Your task to perform on an android device: change the upload size in google photos Image 0: 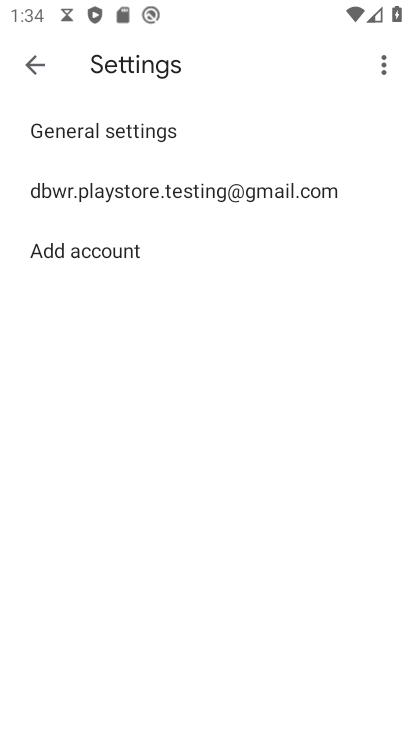
Step 0: press home button
Your task to perform on an android device: change the upload size in google photos Image 1: 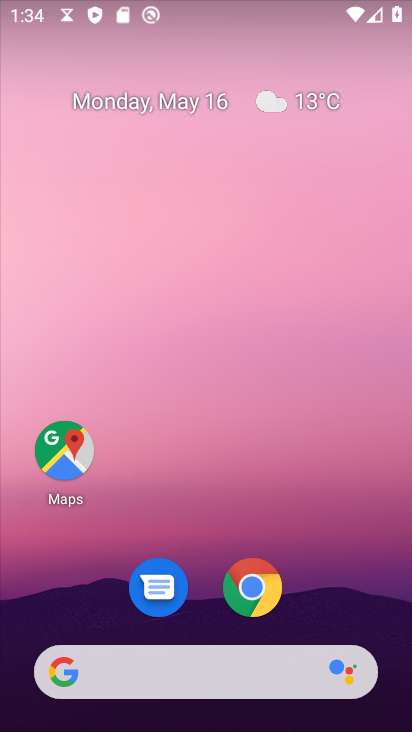
Step 1: drag from (180, 620) to (180, 371)
Your task to perform on an android device: change the upload size in google photos Image 2: 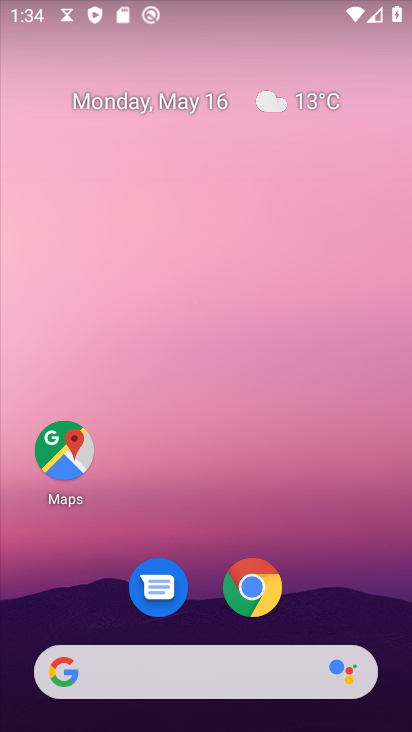
Step 2: drag from (204, 528) to (204, 228)
Your task to perform on an android device: change the upload size in google photos Image 3: 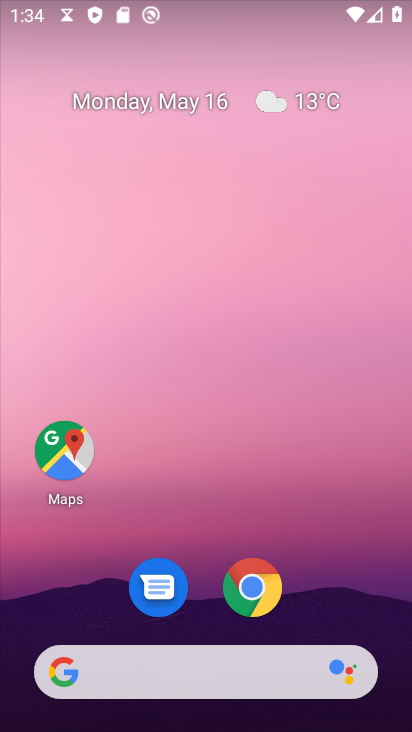
Step 3: drag from (186, 628) to (177, 247)
Your task to perform on an android device: change the upload size in google photos Image 4: 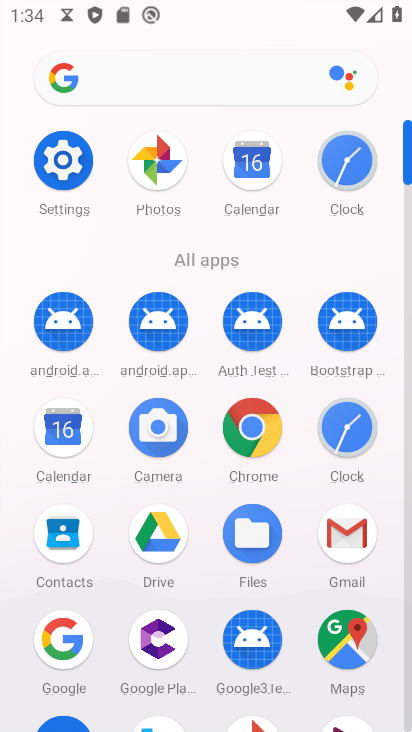
Step 4: click (161, 167)
Your task to perform on an android device: change the upload size in google photos Image 5: 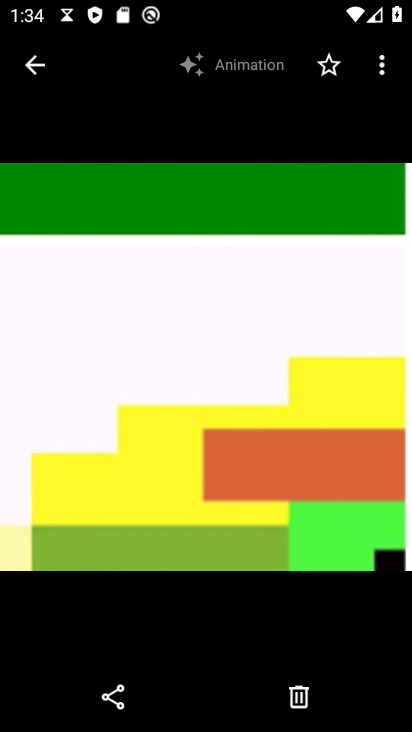
Step 5: click (37, 72)
Your task to perform on an android device: change the upload size in google photos Image 6: 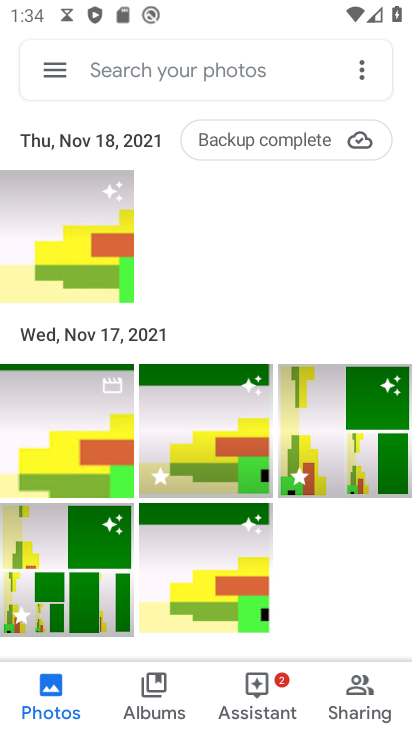
Step 6: click (46, 73)
Your task to perform on an android device: change the upload size in google photos Image 7: 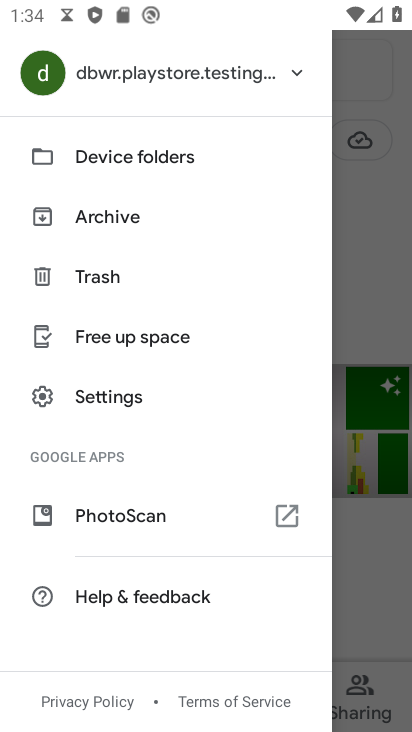
Step 7: click (108, 396)
Your task to perform on an android device: change the upload size in google photos Image 8: 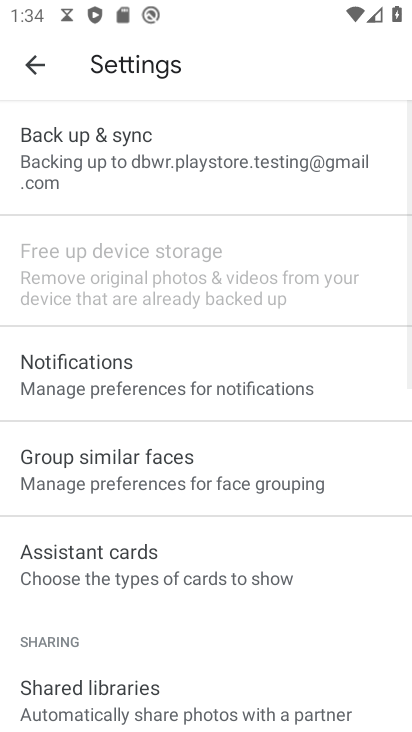
Step 8: click (106, 144)
Your task to perform on an android device: change the upload size in google photos Image 9: 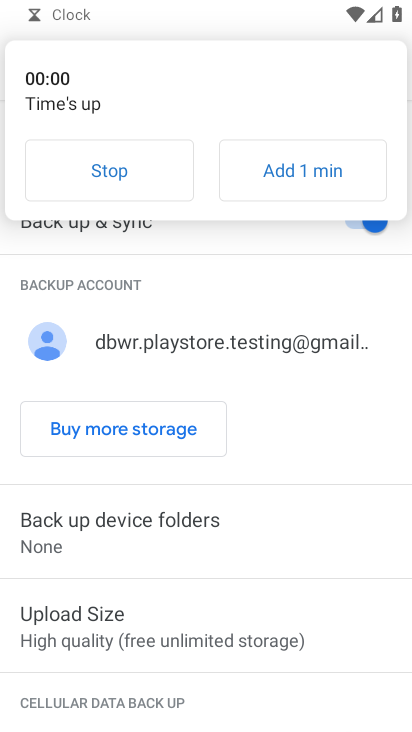
Step 9: click (95, 642)
Your task to perform on an android device: change the upload size in google photos Image 10: 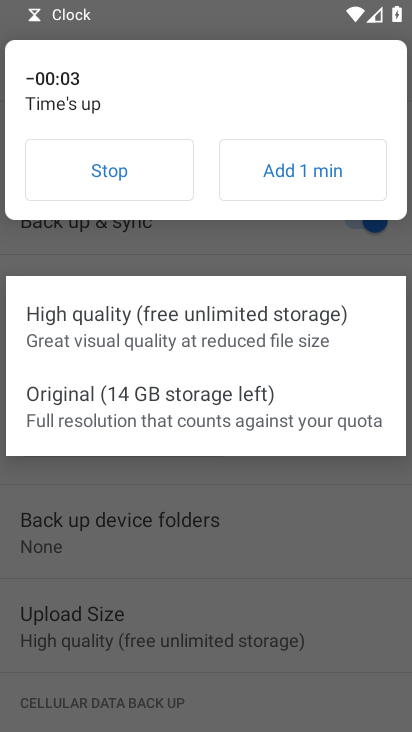
Step 10: click (129, 177)
Your task to perform on an android device: change the upload size in google photos Image 11: 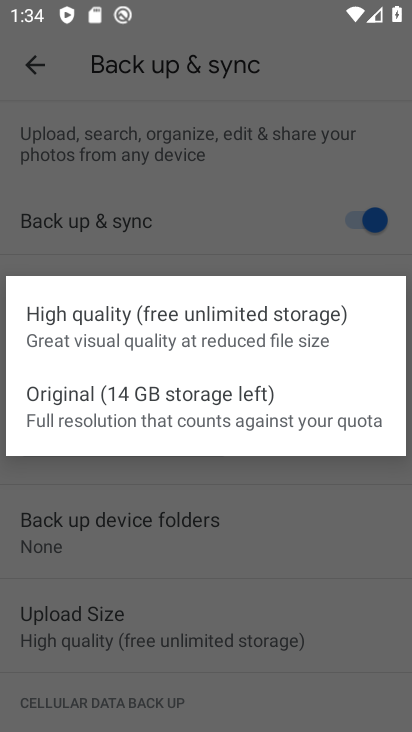
Step 11: click (80, 396)
Your task to perform on an android device: change the upload size in google photos Image 12: 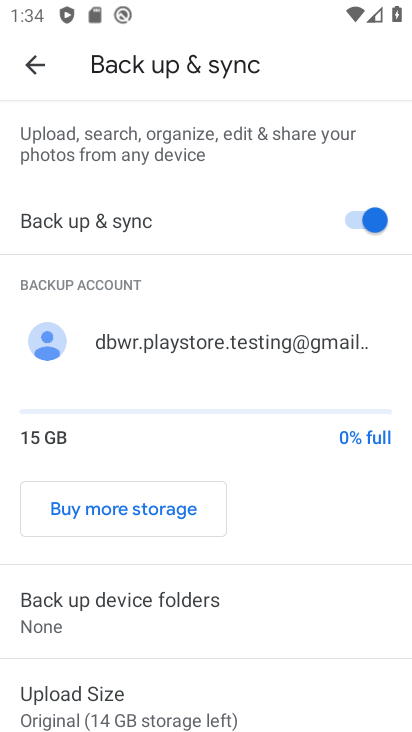
Step 12: task complete